Your task to perform on an android device: open app "Cash App" (install if not already installed) and go to login screen Image 0: 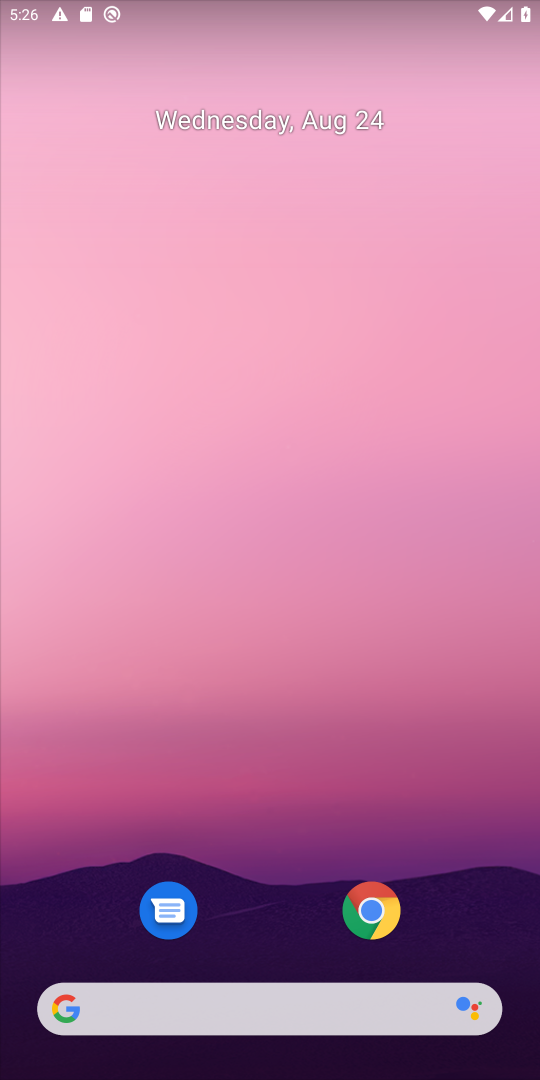
Step 0: drag from (337, 982) to (340, 193)
Your task to perform on an android device: open app "Cash App" (install if not already installed) and go to login screen Image 1: 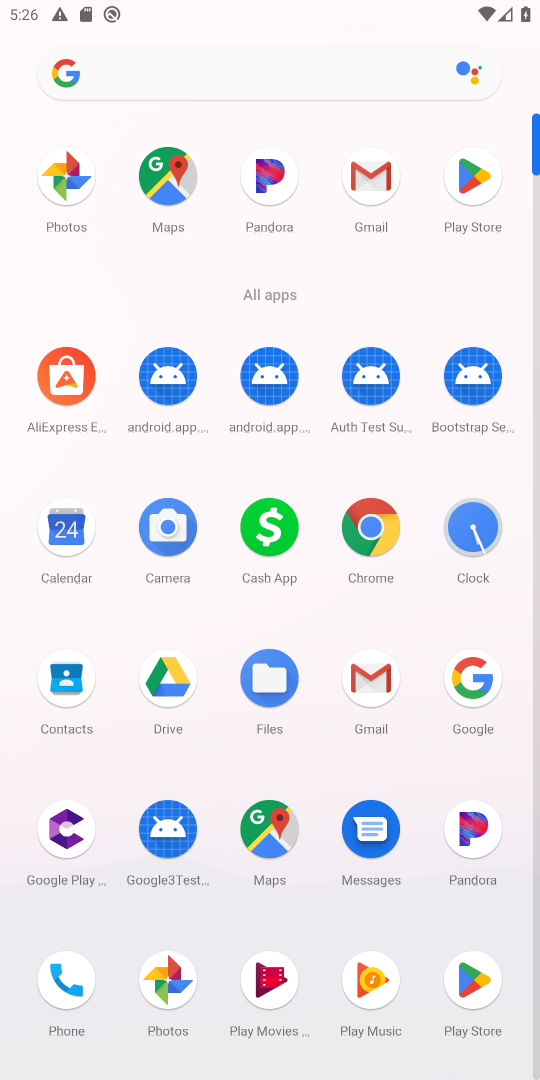
Step 1: click (463, 185)
Your task to perform on an android device: open app "Cash App" (install if not already installed) and go to login screen Image 2: 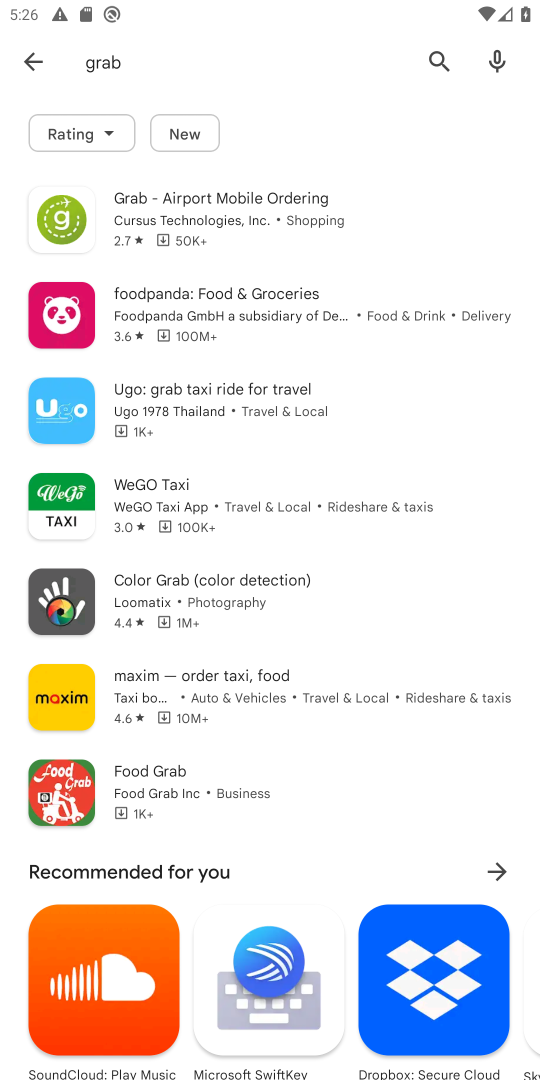
Step 2: click (440, 51)
Your task to perform on an android device: open app "Cash App" (install if not already installed) and go to login screen Image 3: 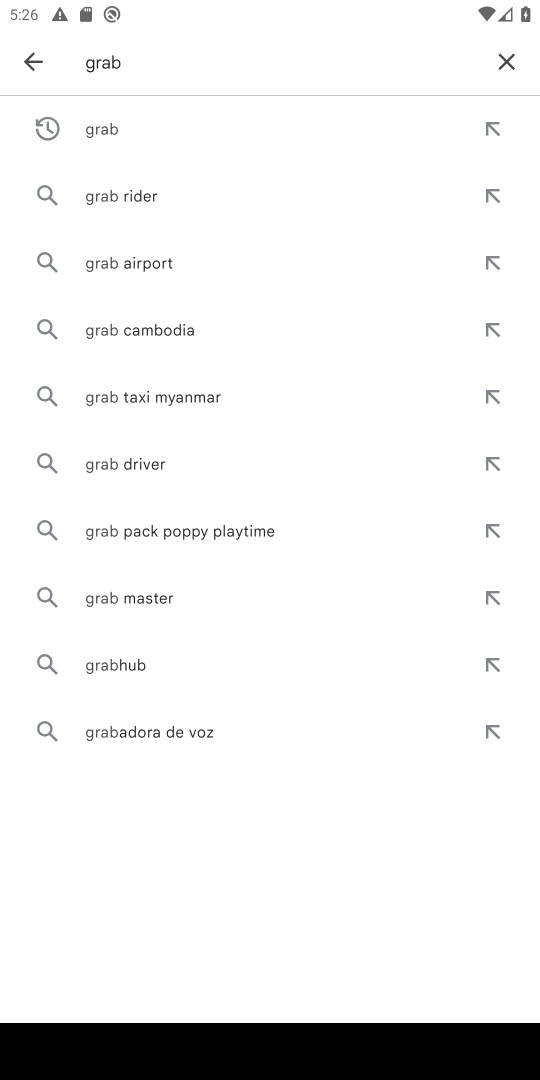
Step 3: click (510, 65)
Your task to perform on an android device: open app "Cash App" (install if not already installed) and go to login screen Image 4: 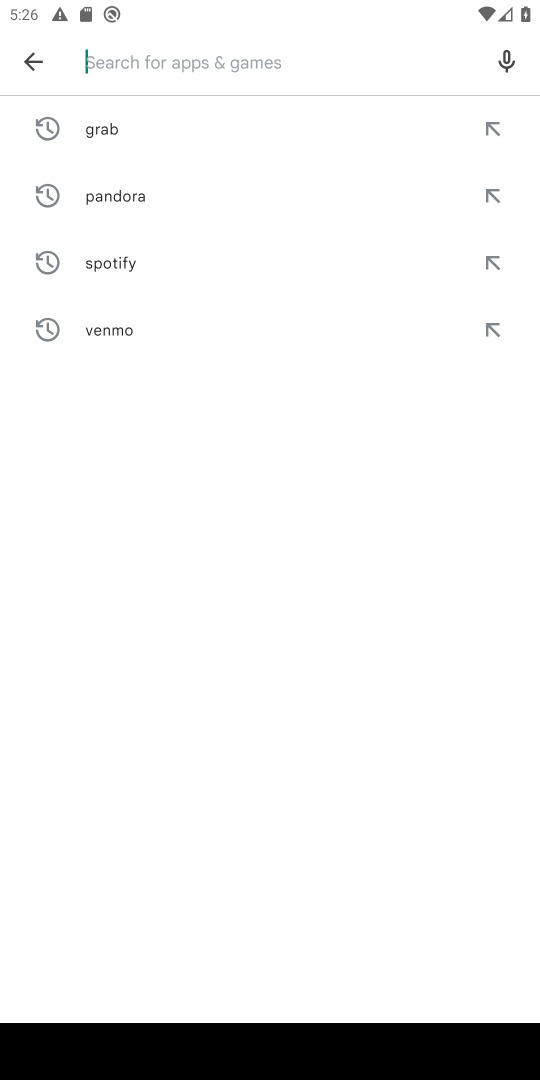
Step 4: type "cash app"
Your task to perform on an android device: open app "Cash App" (install if not already installed) and go to login screen Image 5: 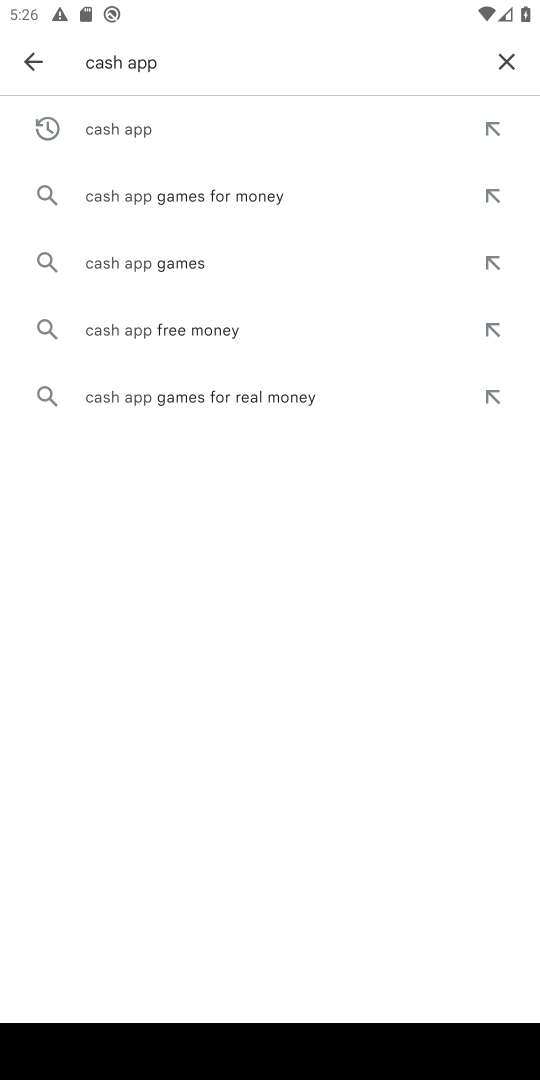
Step 5: click (153, 129)
Your task to perform on an android device: open app "Cash App" (install if not already installed) and go to login screen Image 6: 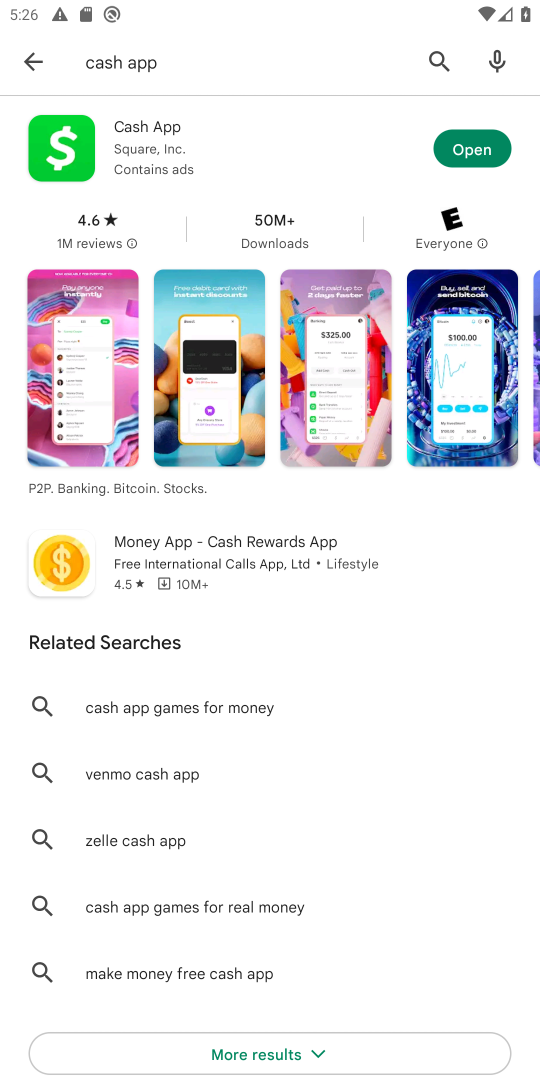
Step 6: click (464, 166)
Your task to perform on an android device: open app "Cash App" (install if not already installed) and go to login screen Image 7: 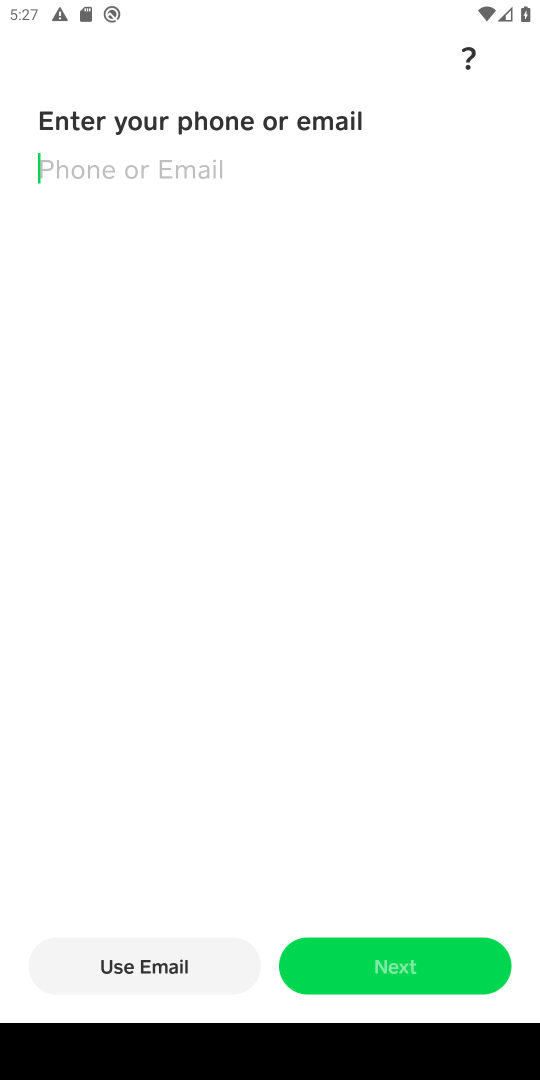
Step 7: task complete